Your task to perform on an android device: Set the phone to "Do not disturb". Image 0: 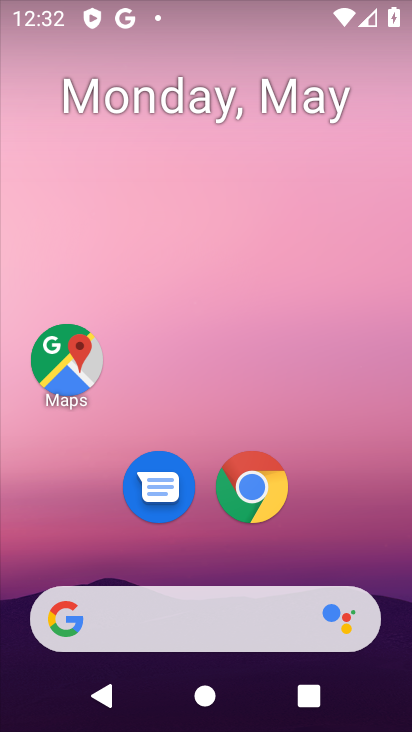
Step 0: drag from (344, 550) to (249, 3)
Your task to perform on an android device: Set the phone to "Do not disturb". Image 1: 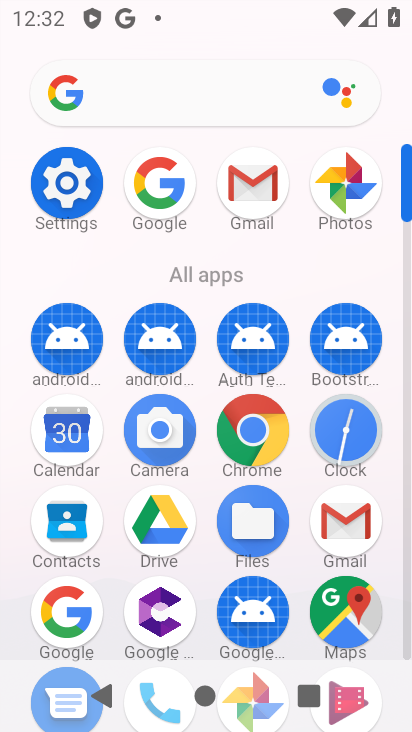
Step 1: click (70, 184)
Your task to perform on an android device: Set the phone to "Do not disturb". Image 2: 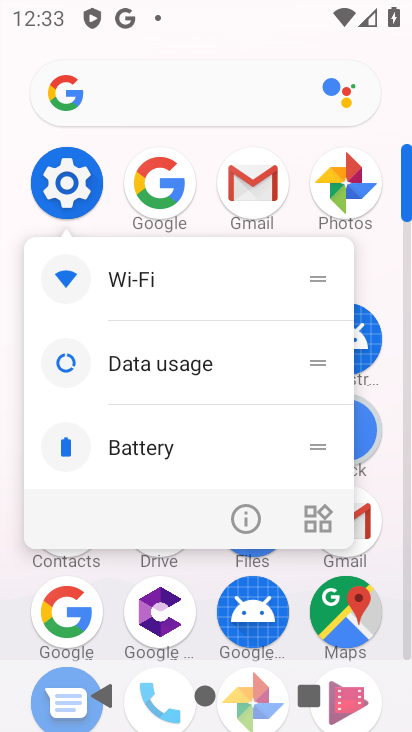
Step 2: click (71, 181)
Your task to perform on an android device: Set the phone to "Do not disturb". Image 3: 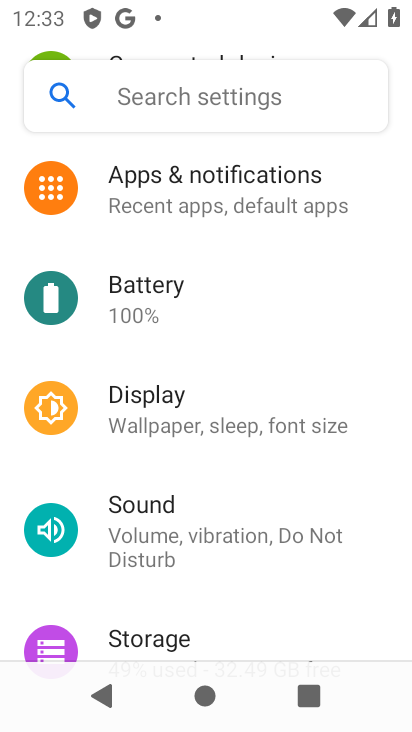
Step 3: click (202, 533)
Your task to perform on an android device: Set the phone to "Do not disturb". Image 4: 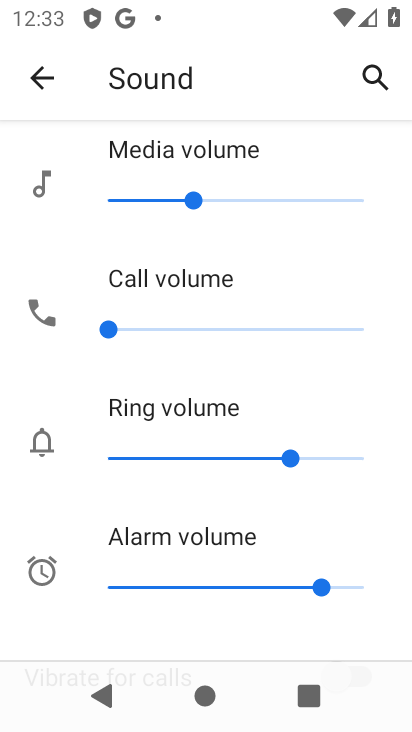
Step 4: drag from (187, 619) to (267, 439)
Your task to perform on an android device: Set the phone to "Do not disturb". Image 5: 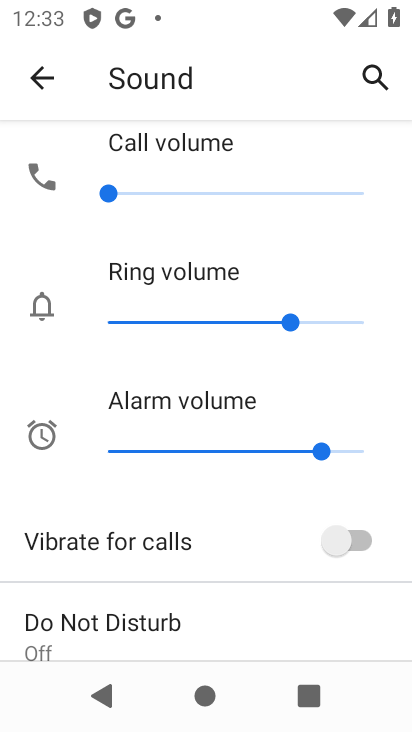
Step 5: drag from (211, 588) to (262, 497)
Your task to perform on an android device: Set the phone to "Do not disturb". Image 6: 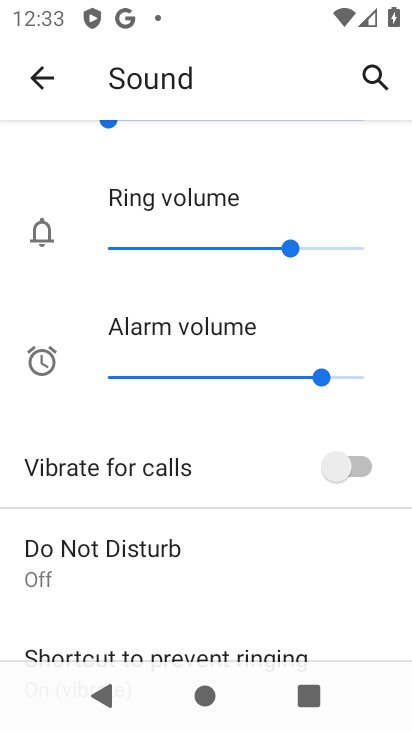
Step 6: click (122, 541)
Your task to perform on an android device: Set the phone to "Do not disturb". Image 7: 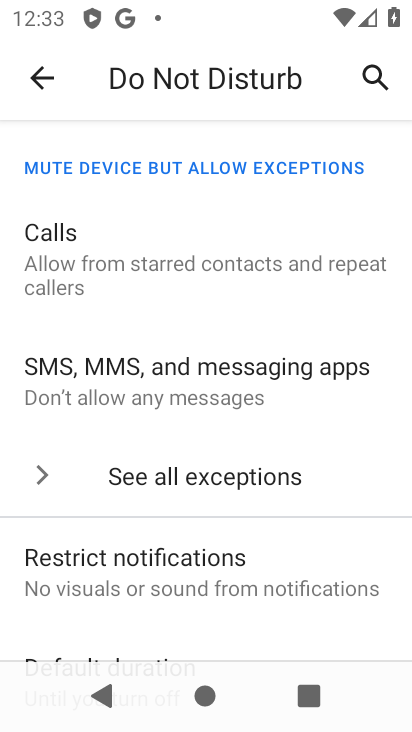
Step 7: drag from (271, 554) to (294, 391)
Your task to perform on an android device: Set the phone to "Do not disturb". Image 8: 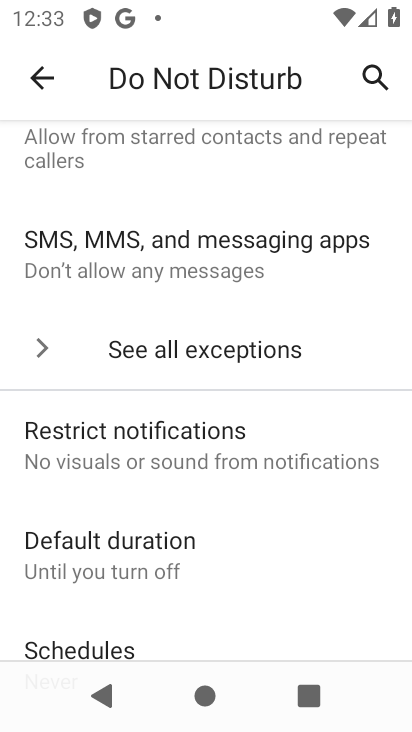
Step 8: drag from (229, 590) to (282, 416)
Your task to perform on an android device: Set the phone to "Do not disturb". Image 9: 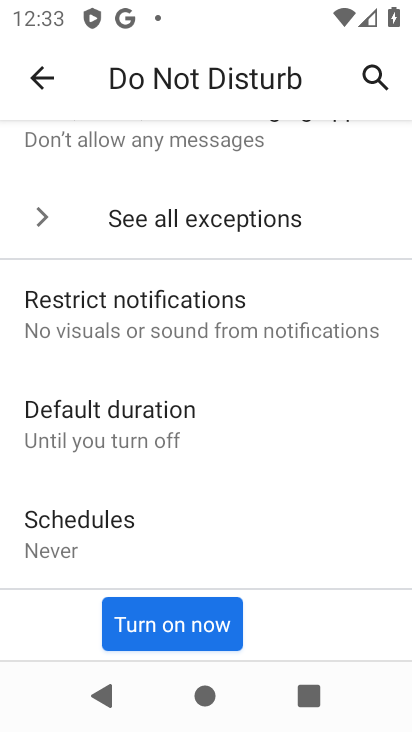
Step 9: click (179, 613)
Your task to perform on an android device: Set the phone to "Do not disturb". Image 10: 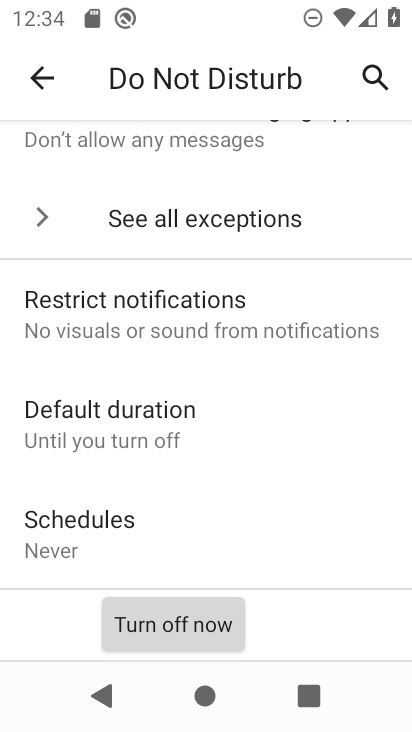
Step 10: task complete